Your task to perform on an android device: create a new album in the google photos Image 0: 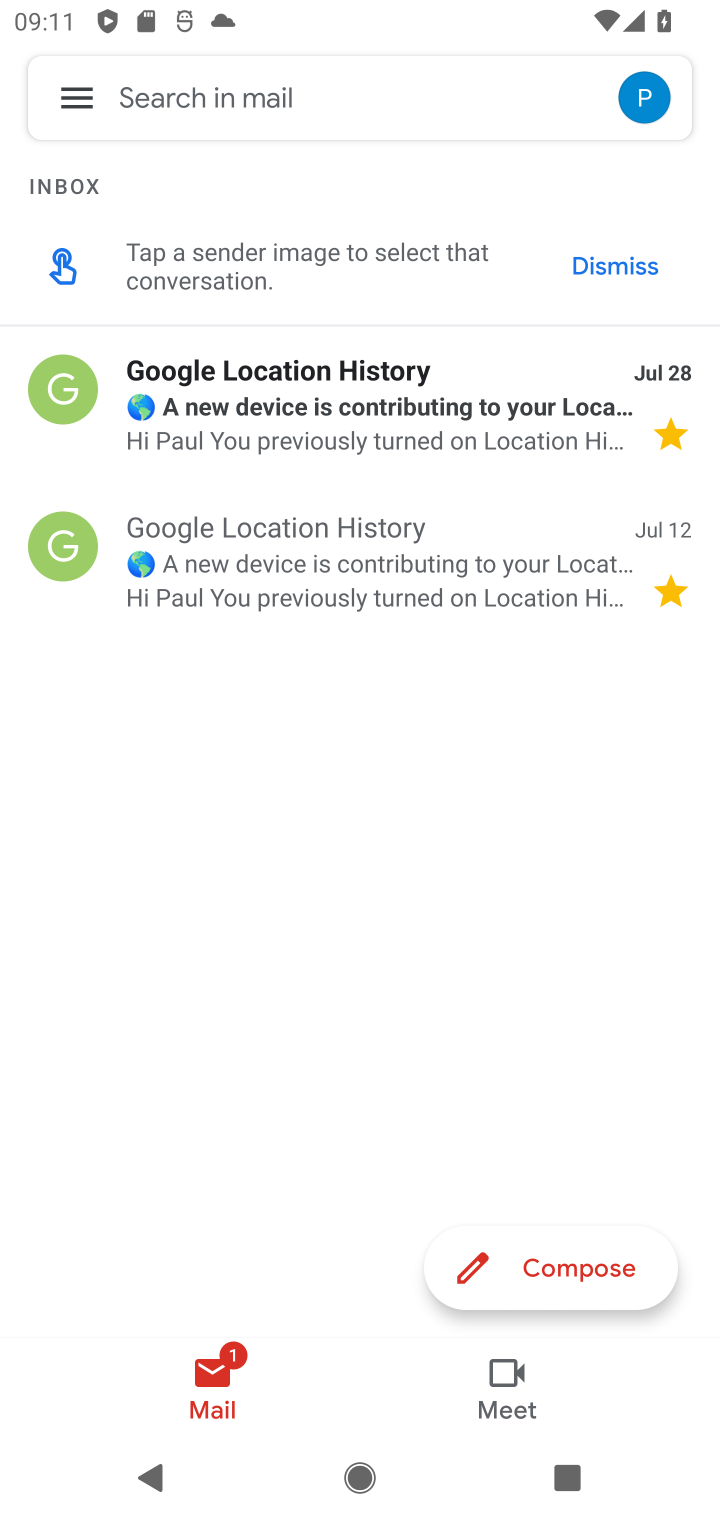
Step 0: press home button
Your task to perform on an android device: create a new album in the google photos Image 1: 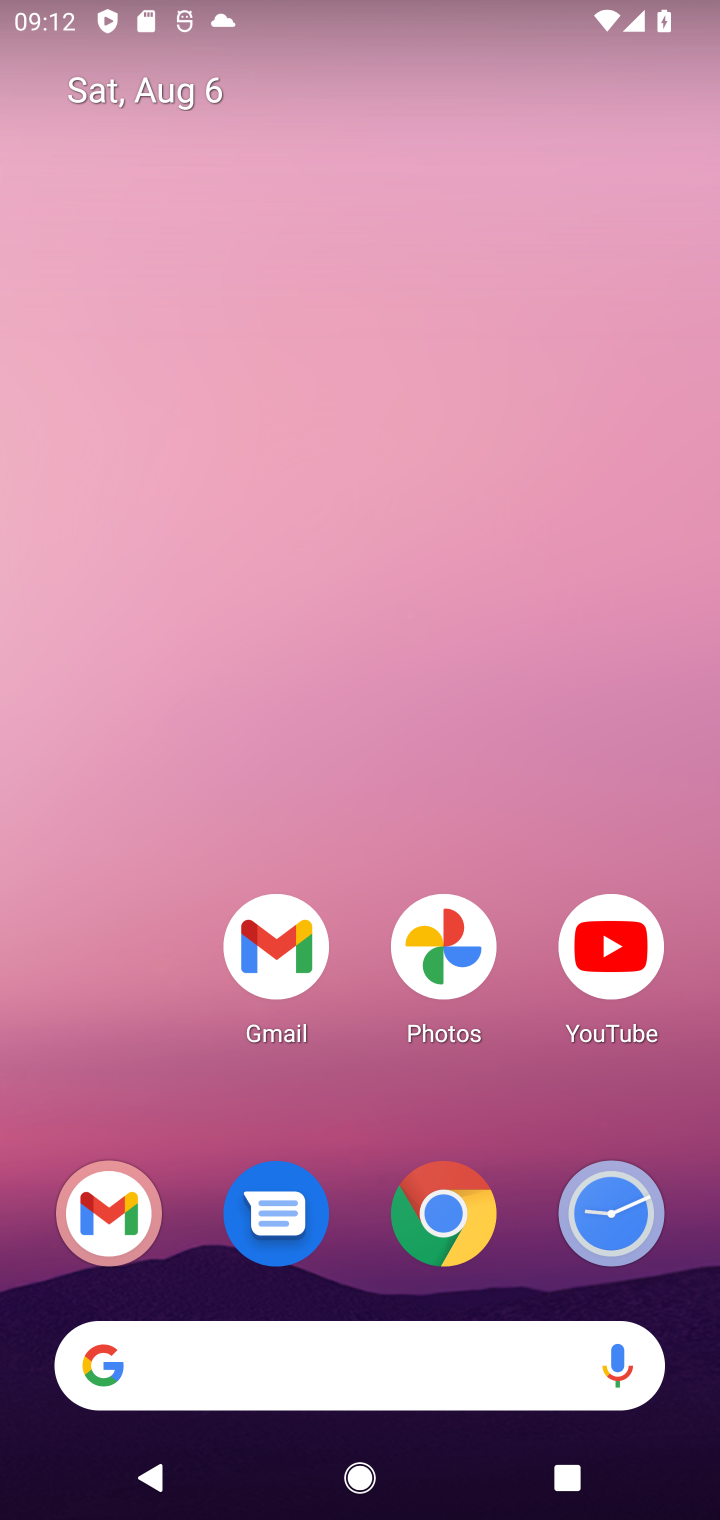
Step 1: drag from (318, 1166) to (390, 217)
Your task to perform on an android device: create a new album in the google photos Image 2: 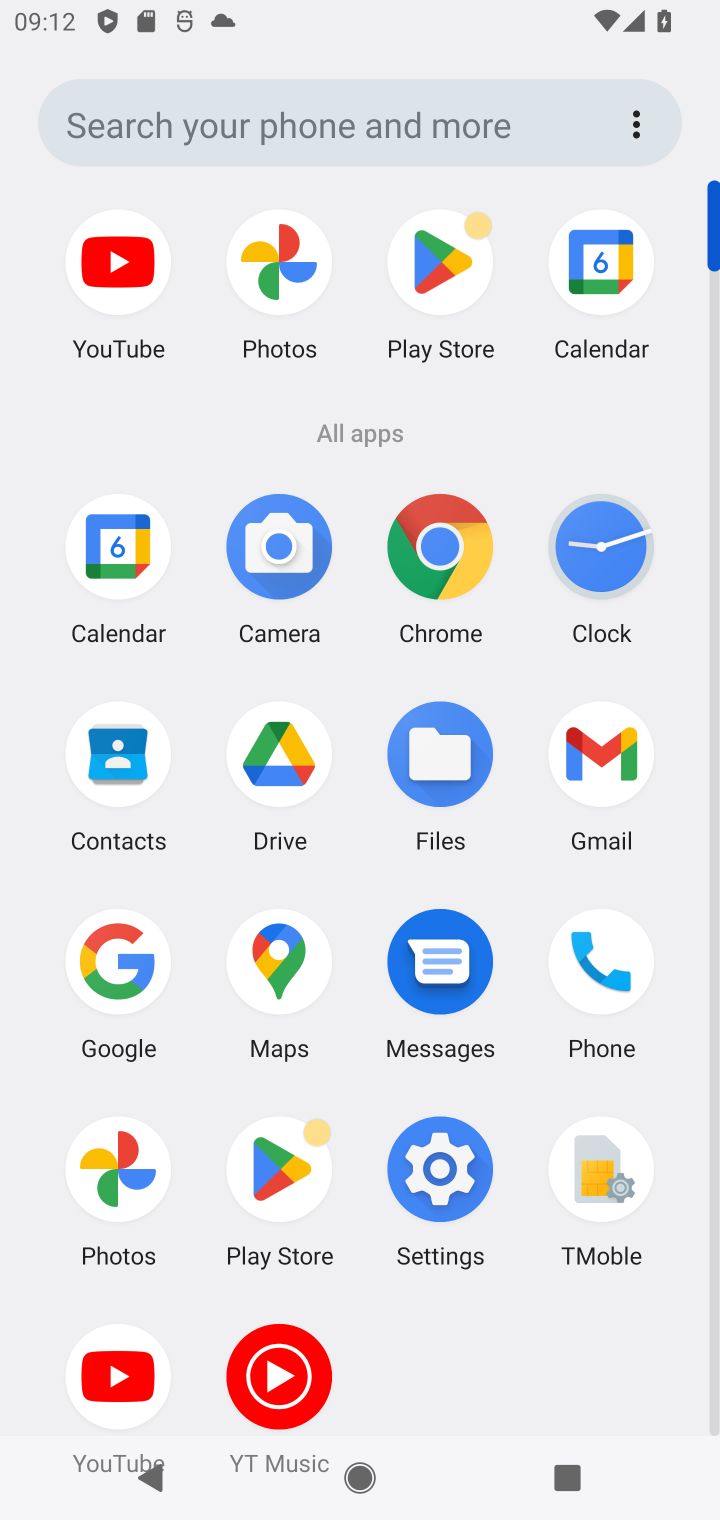
Step 2: click (293, 241)
Your task to perform on an android device: create a new album in the google photos Image 3: 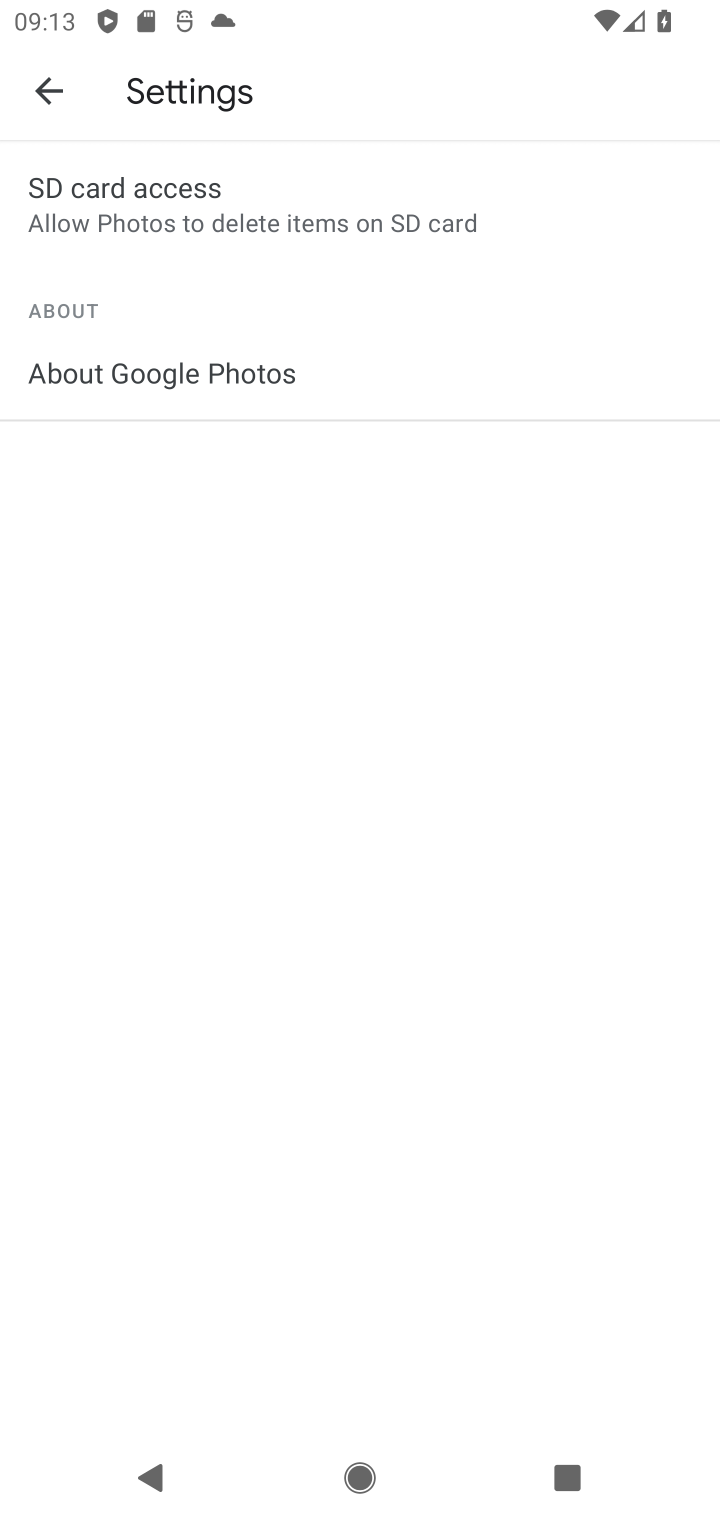
Step 3: press home button
Your task to perform on an android device: create a new album in the google photos Image 4: 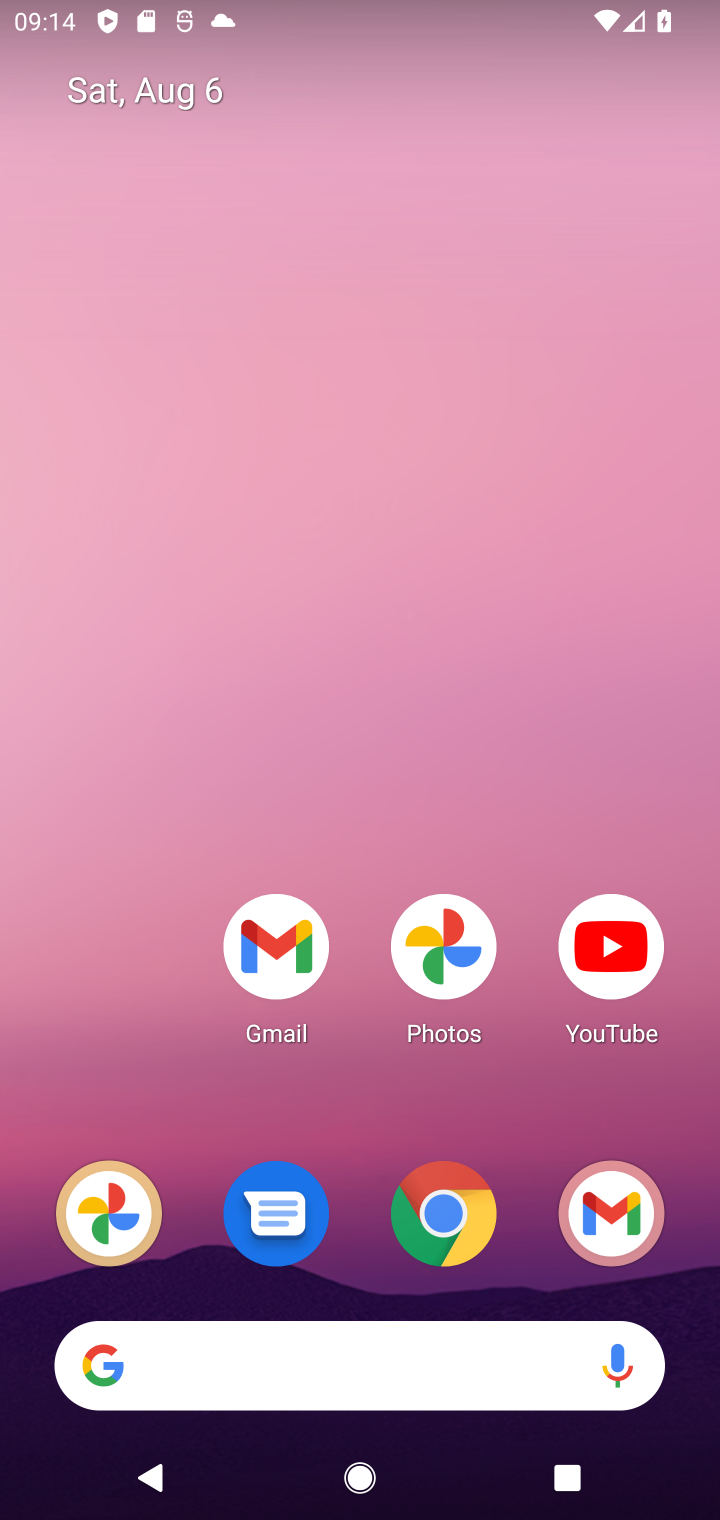
Step 4: drag from (230, 1225) to (253, 185)
Your task to perform on an android device: create a new album in the google photos Image 5: 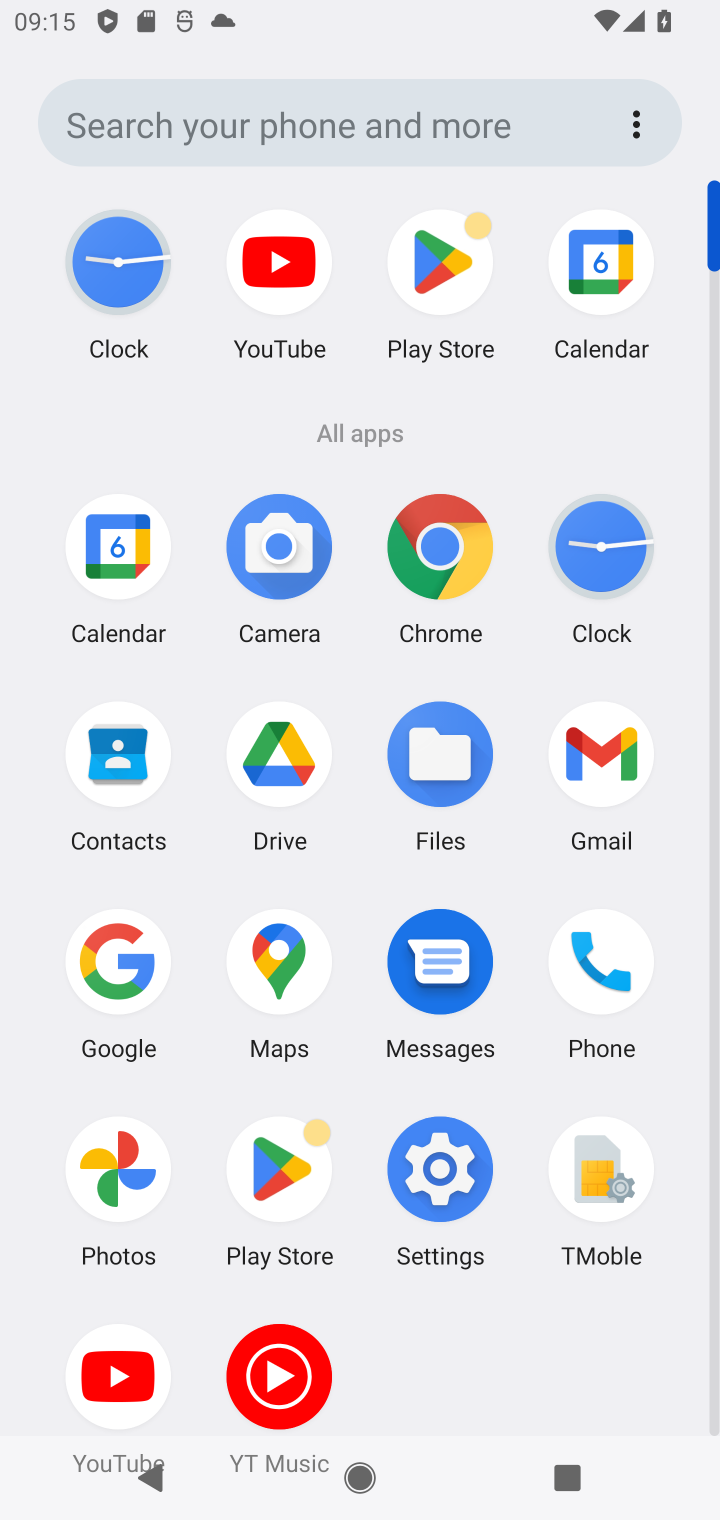
Step 5: click (121, 1182)
Your task to perform on an android device: create a new album in the google photos Image 6: 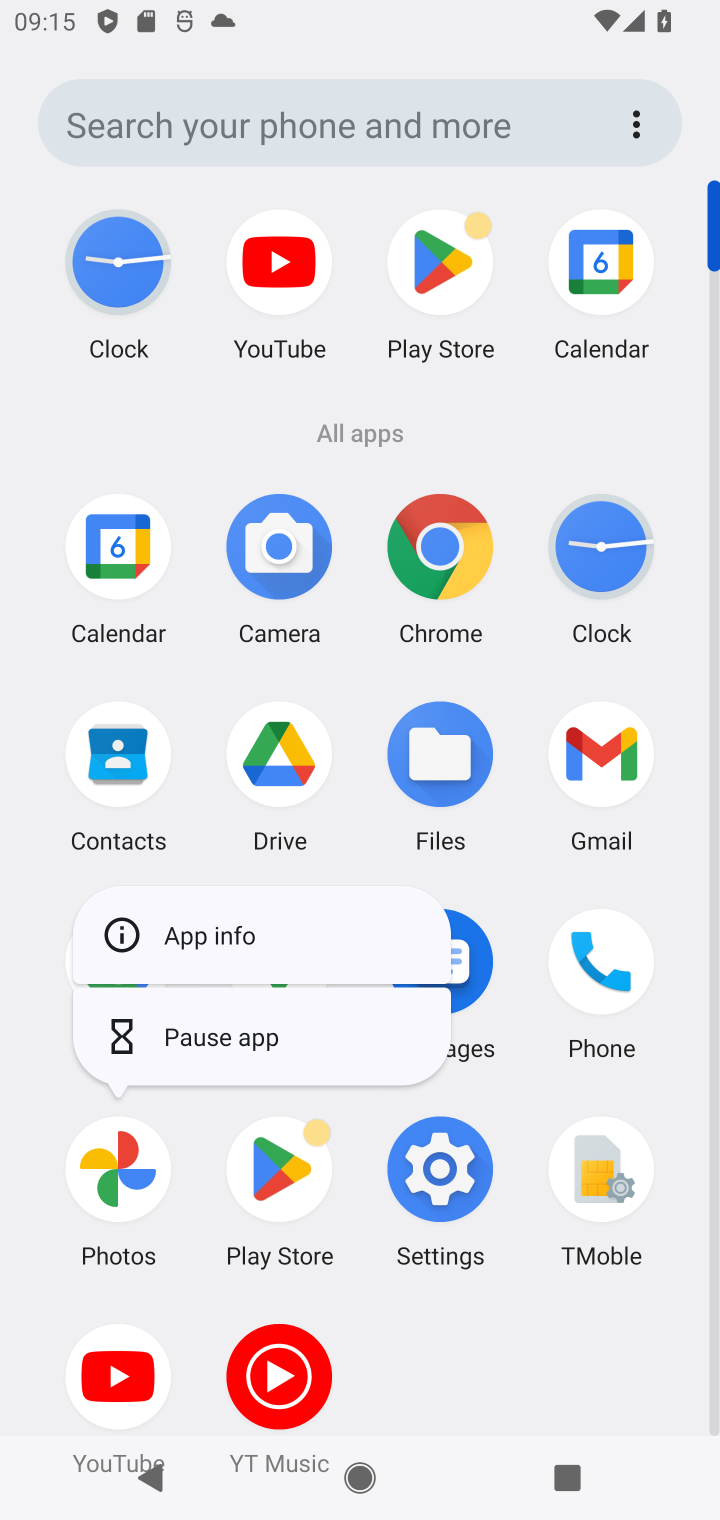
Step 6: click (119, 1180)
Your task to perform on an android device: create a new album in the google photos Image 7: 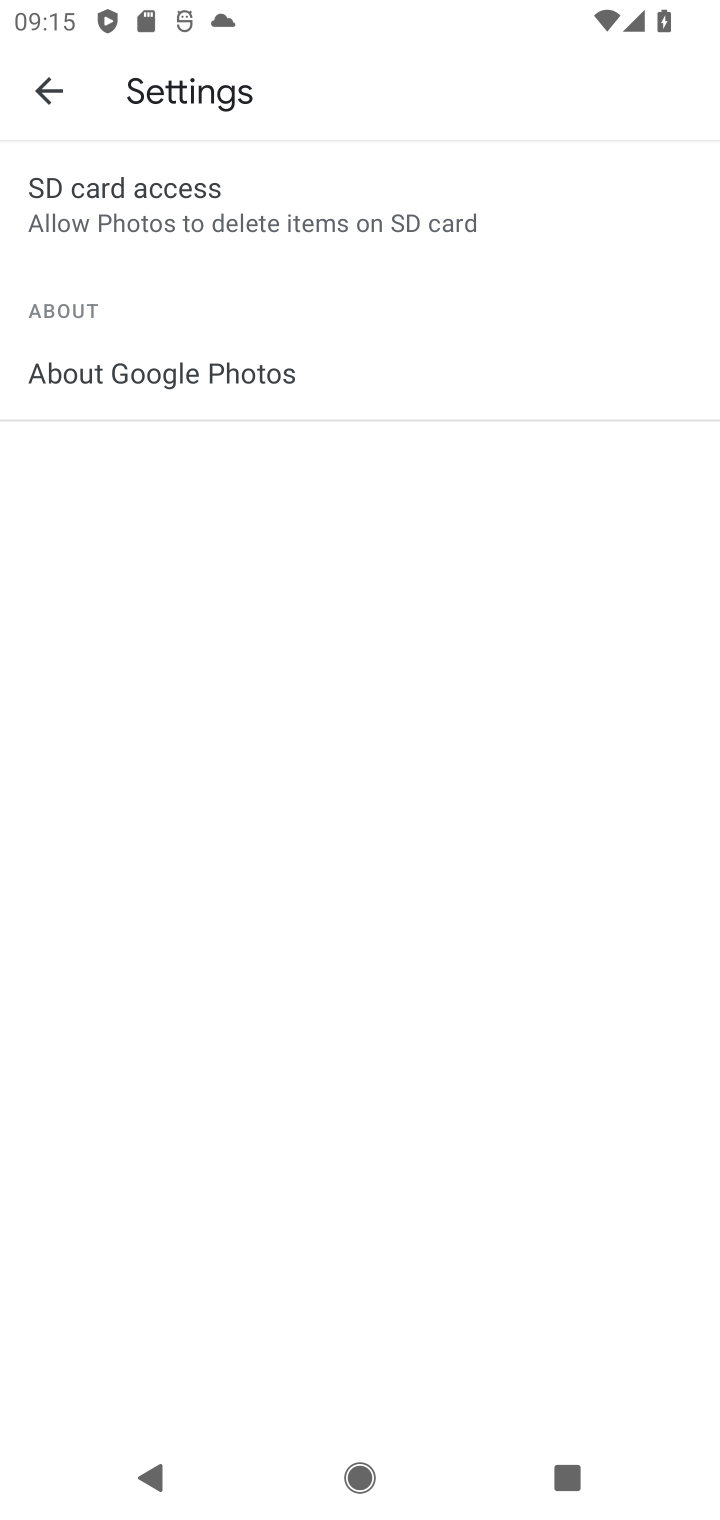
Step 7: click (58, 91)
Your task to perform on an android device: create a new album in the google photos Image 8: 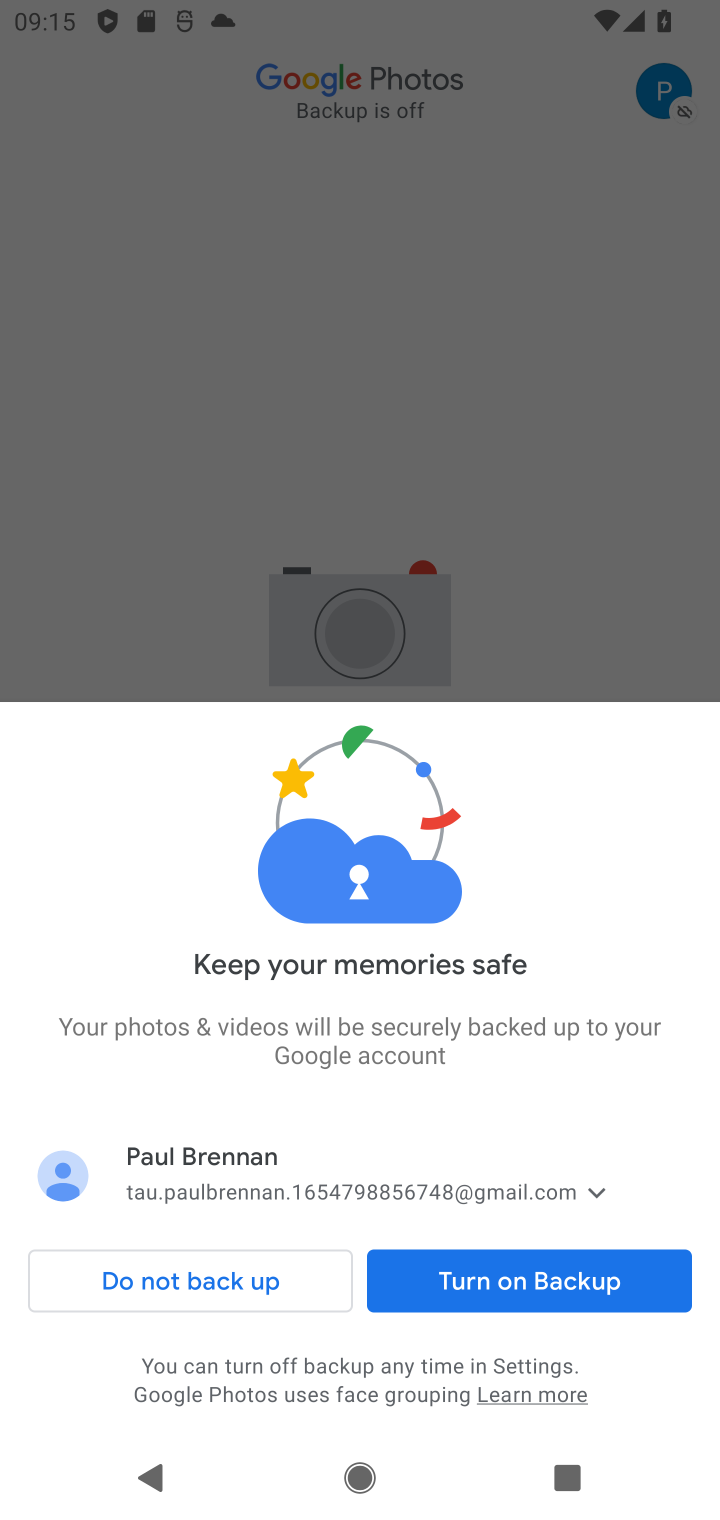
Step 8: click (526, 1270)
Your task to perform on an android device: create a new album in the google photos Image 9: 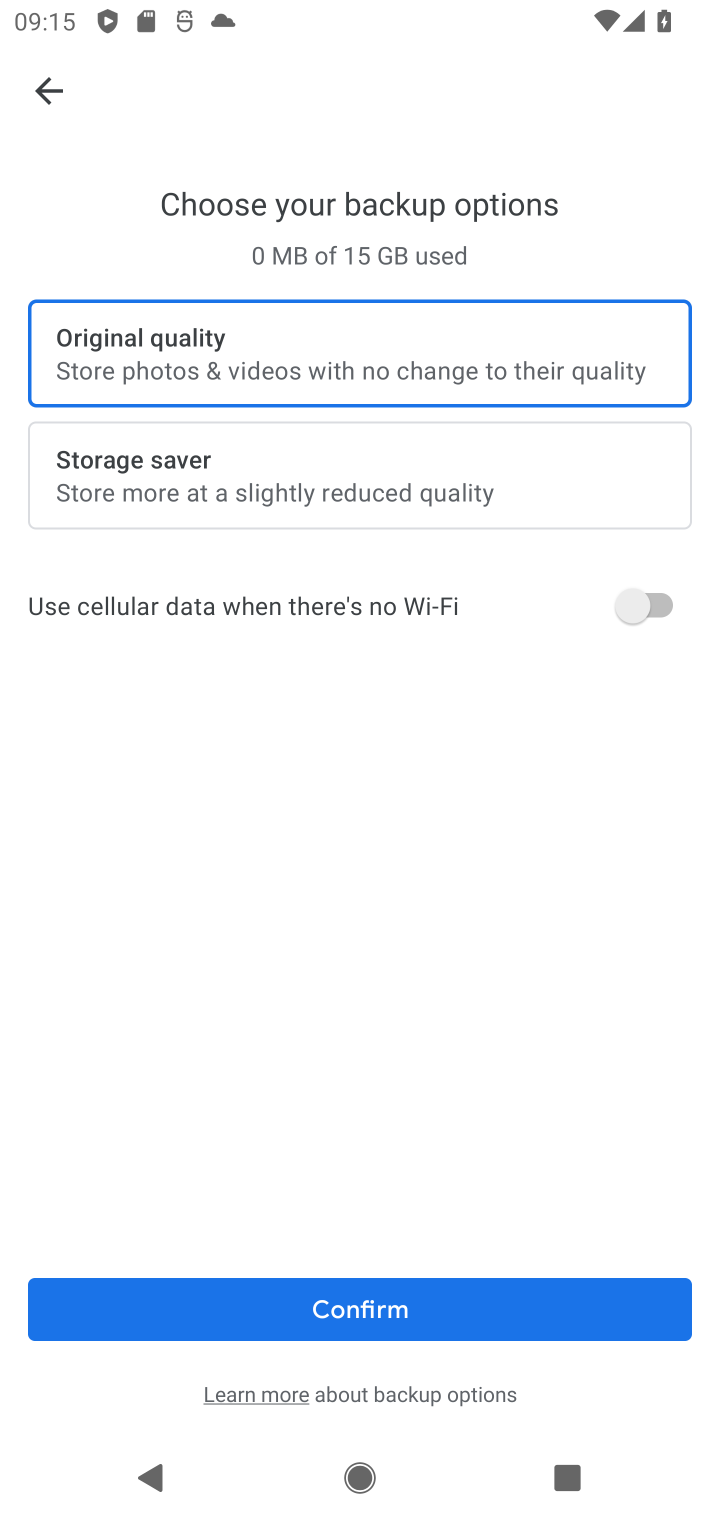
Step 9: click (496, 1286)
Your task to perform on an android device: create a new album in the google photos Image 10: 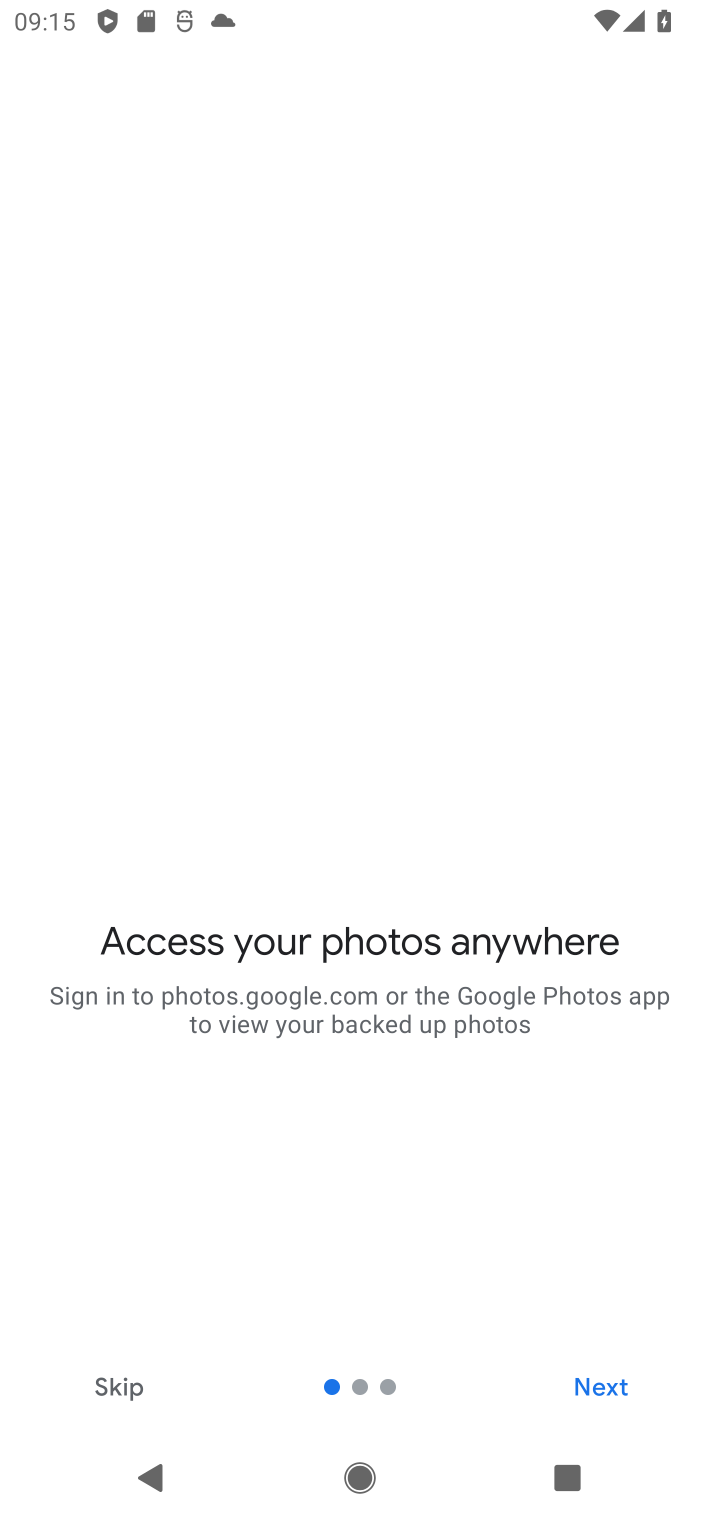
Step 10: click (410, 1317)
Your task to perform on an android device: create a new album in the google photos Image 11: 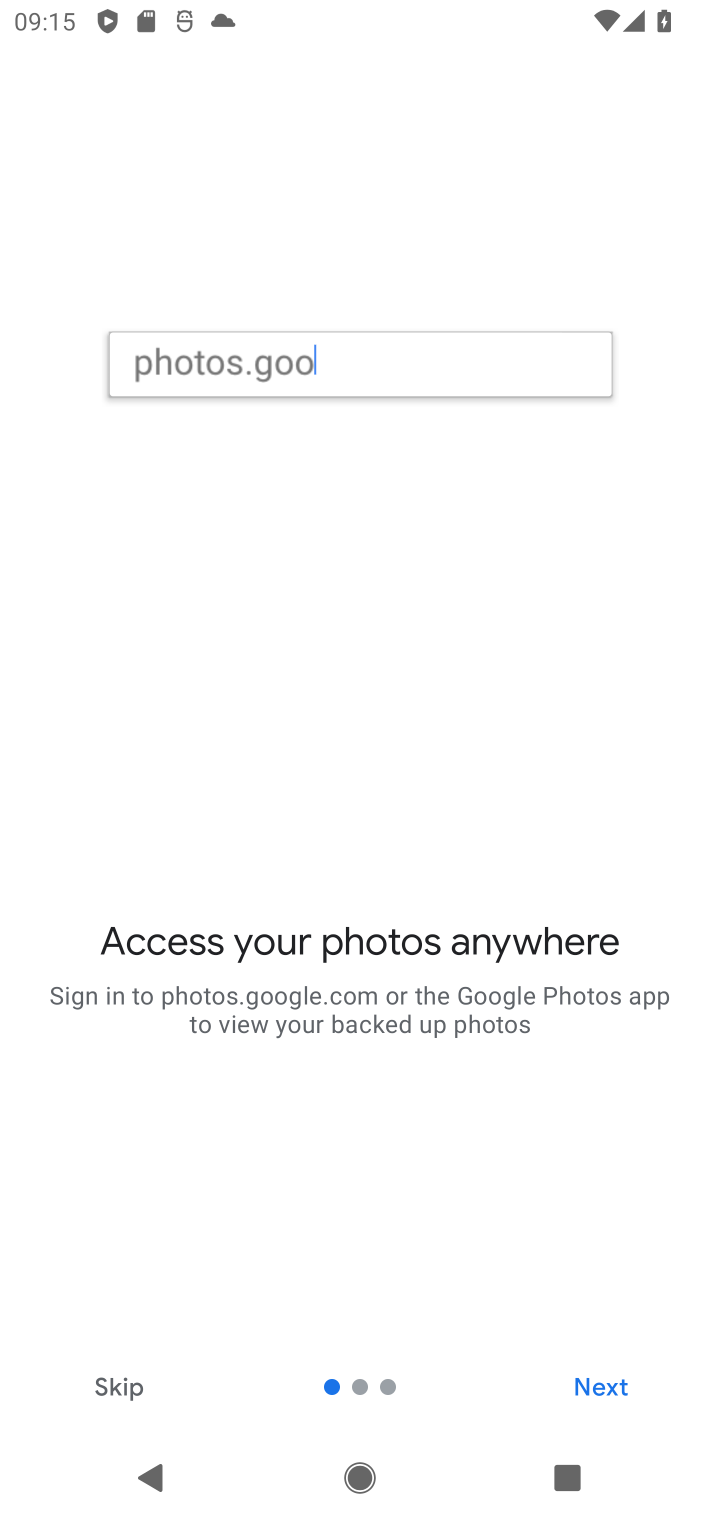
Step 11: click (622, 1403)
Your task to perform on an android device: create a new album in the google photos Image 12: 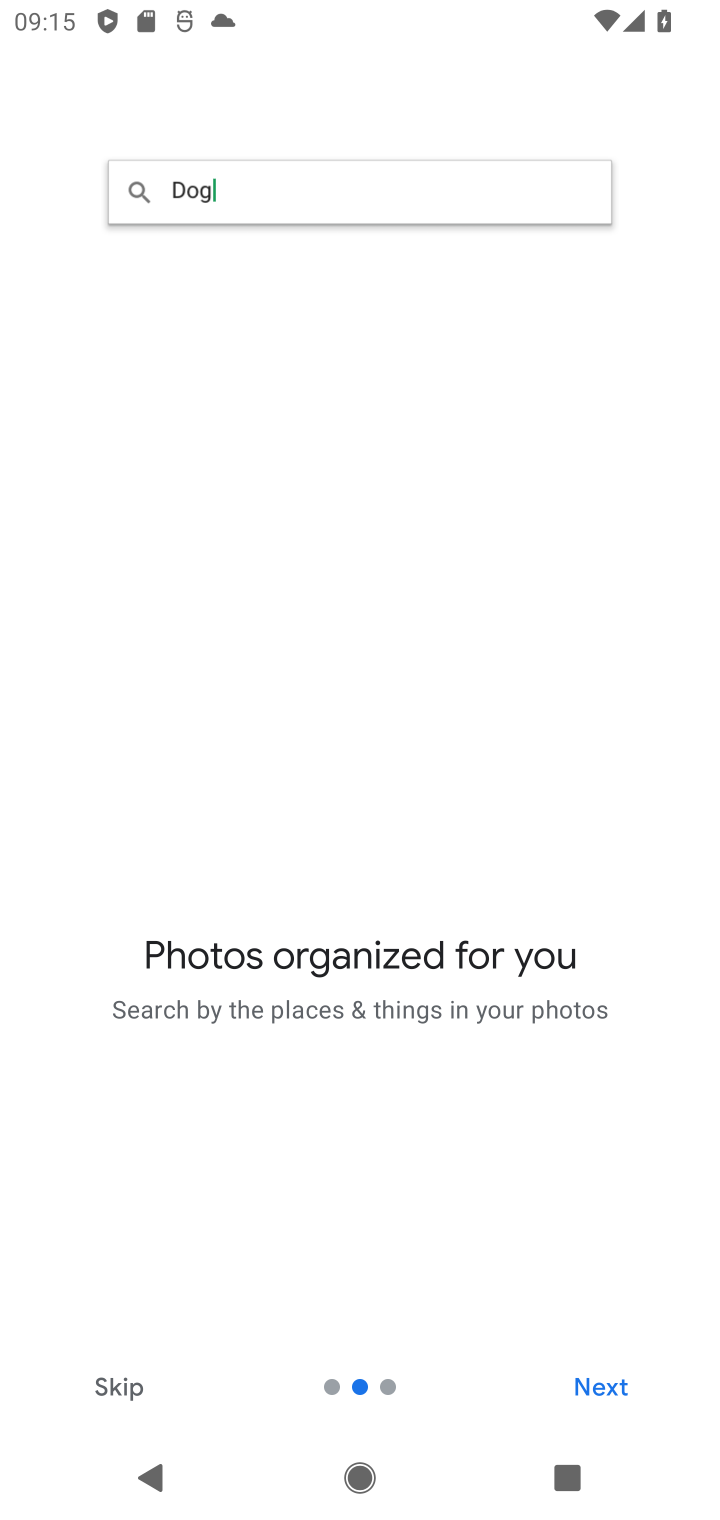
Step 12: click (611, 1397)
Your task to perform on an android device: create a new album in the google photos Image 13: 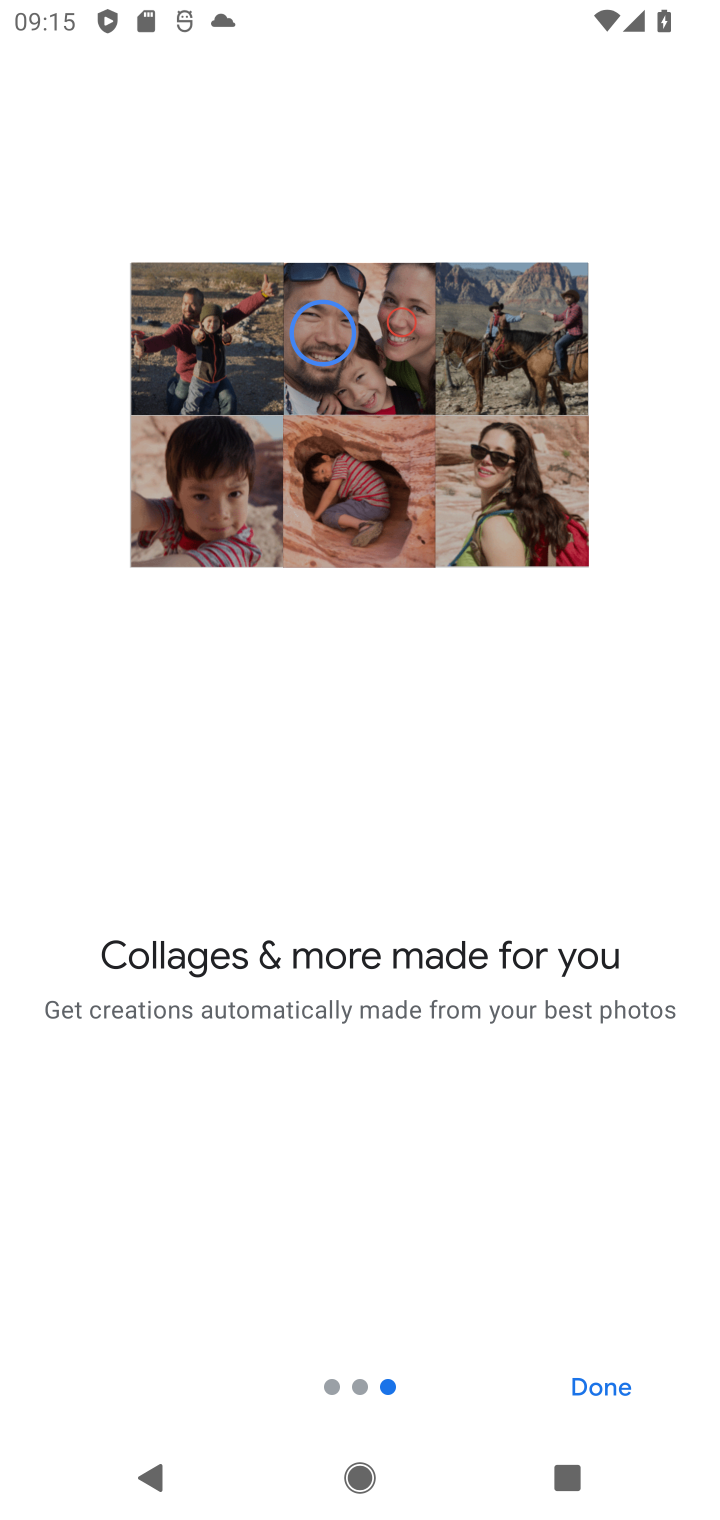
Step 13: click (611, 1397)
Your task to perform on an android device: create a new album in the google photos Image 14: 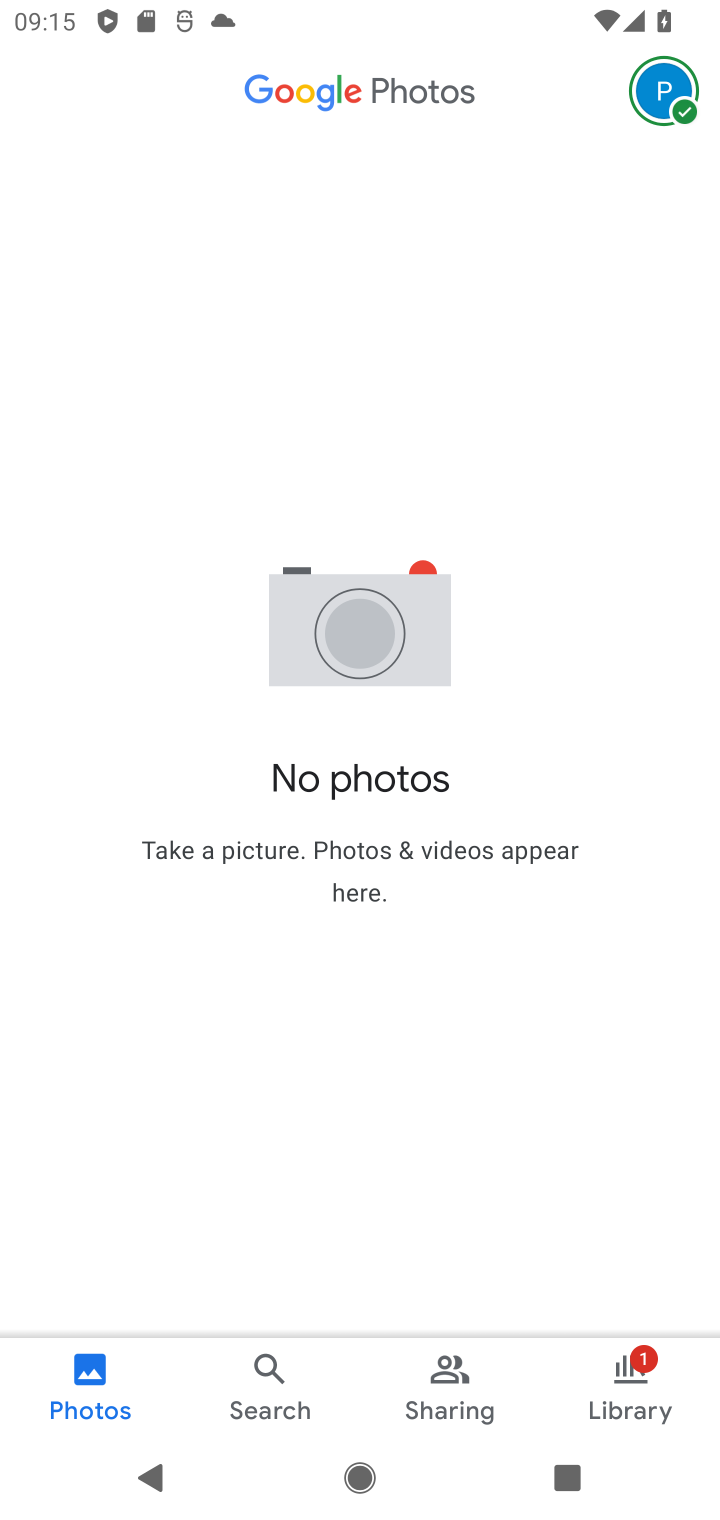
Step 14: click (611, 1397)
Your task to perform on an android device: create a new album in the google photos Image 15: 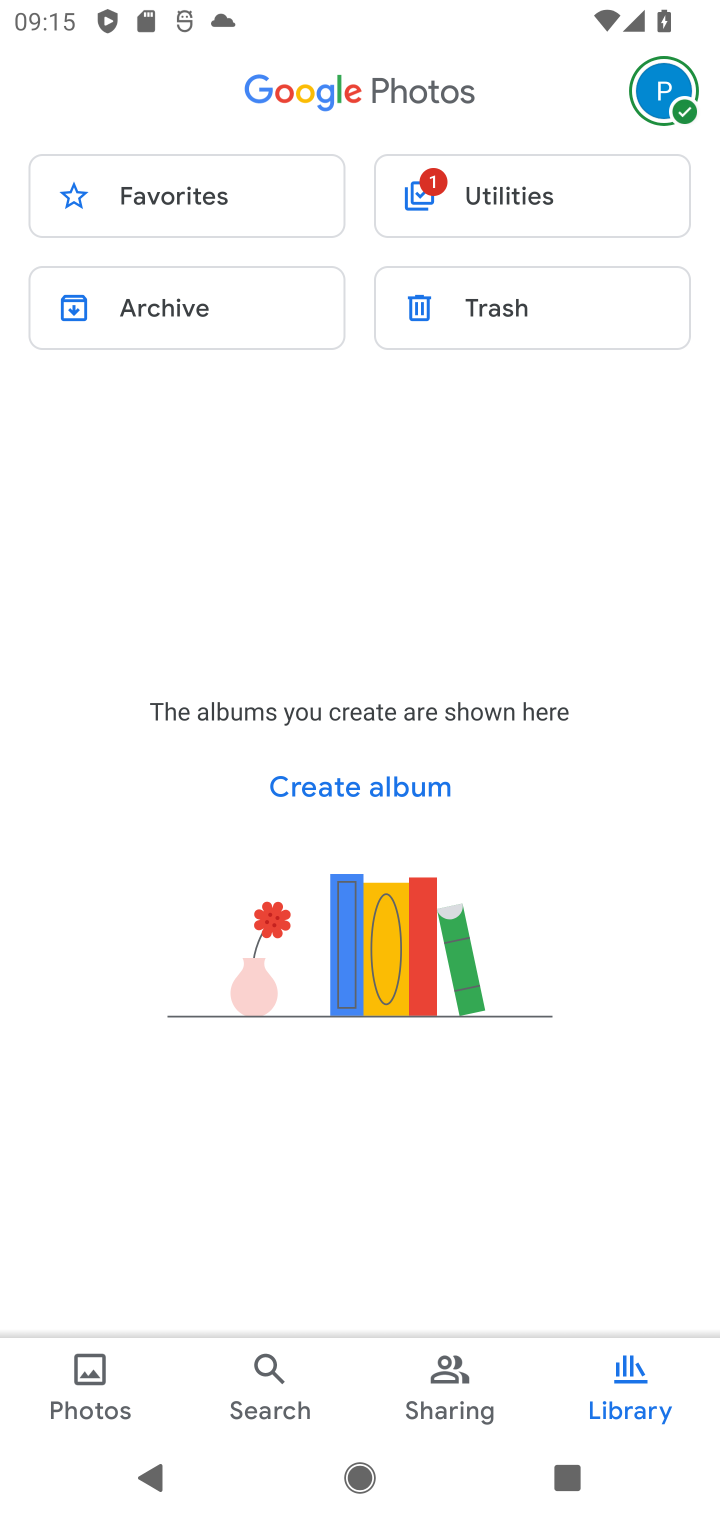
Step 15: task complete